Your task to perform on an android device: Open Chrome and go to settings Image 0: 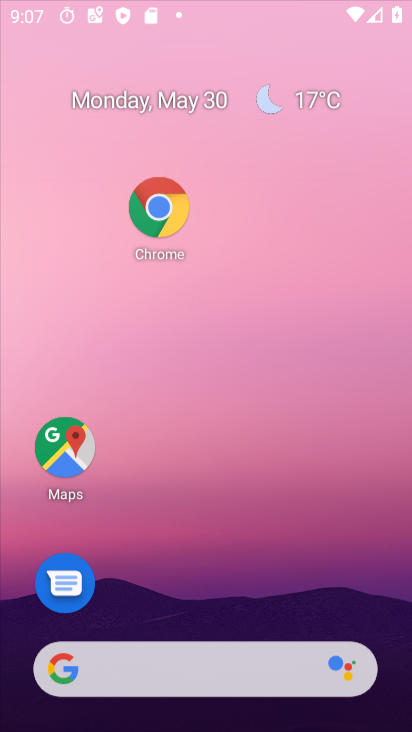
Step 0: drag from (409, 144) to (321, 0)
Your task to perform on an android device: Open Chrome and go to settings Image 1: 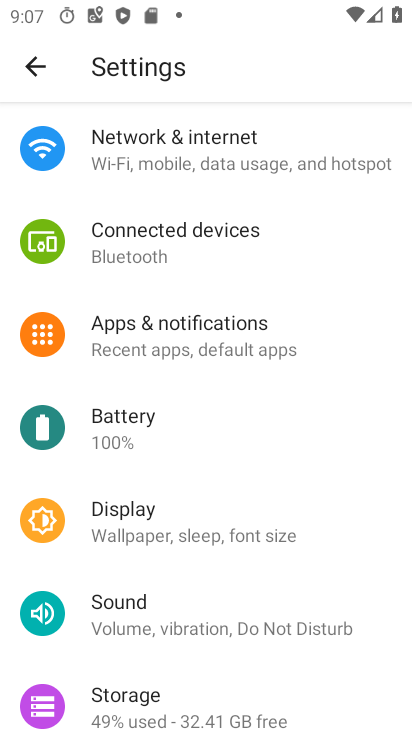
Step 1: press home button
Your task to perform on an android device: Open Chrome and go to settings Image 2: 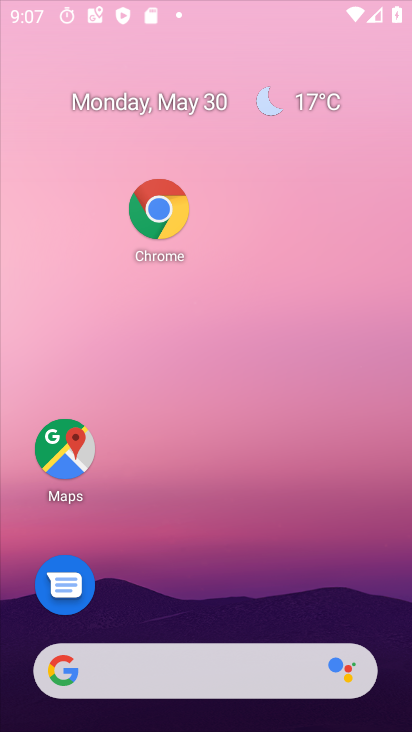
Step 2: click (232, 168)
Your task to perform on an android device: Open Chrome and go to settings Image 3: 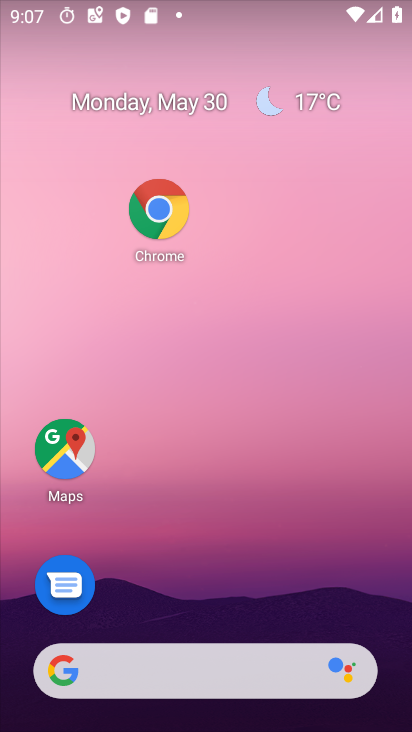
Step 3: click (157, 204)
Your task to perform on an android device: Open Chrome and go to settings Image 4: 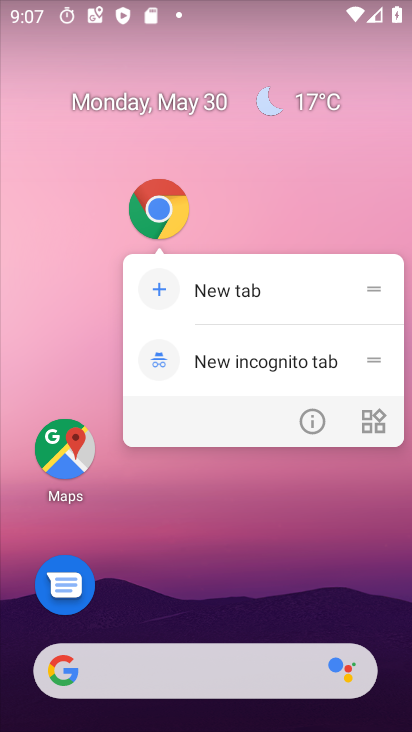
Step 4: click (321, 410)
Your task to perform on an android device: Open Chrome and go to settings Image 5: 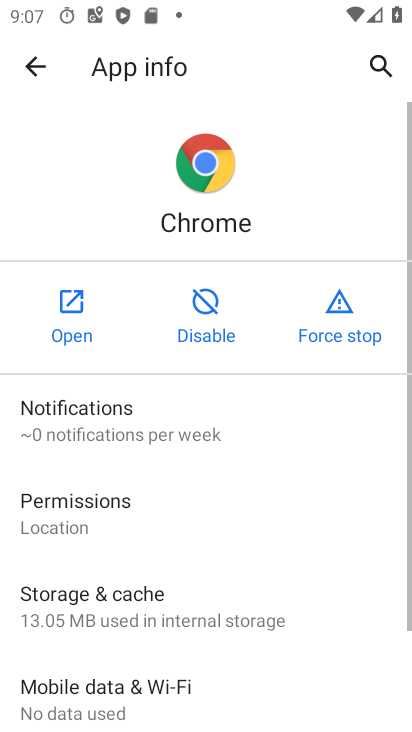
Step 5: click (84, 327)
Your task to perform on an android device: Open Chrome and go to settings Image 6: 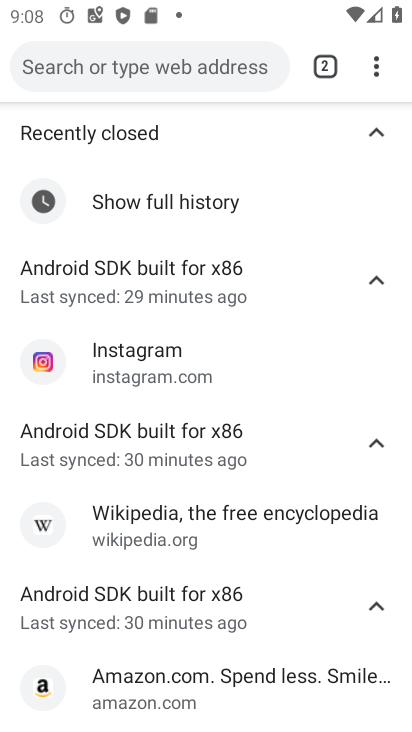
Step 6: task complete